Your task to perform on an android device: delete location history Image 0: 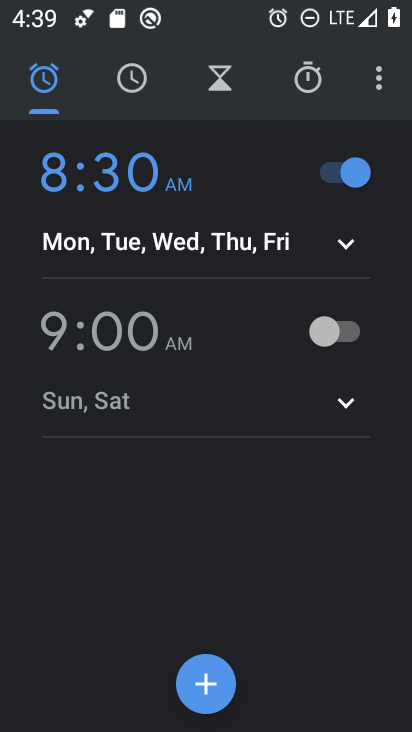
Step 0: press back button
Your task to perform on an android device: delete location history Image 1: 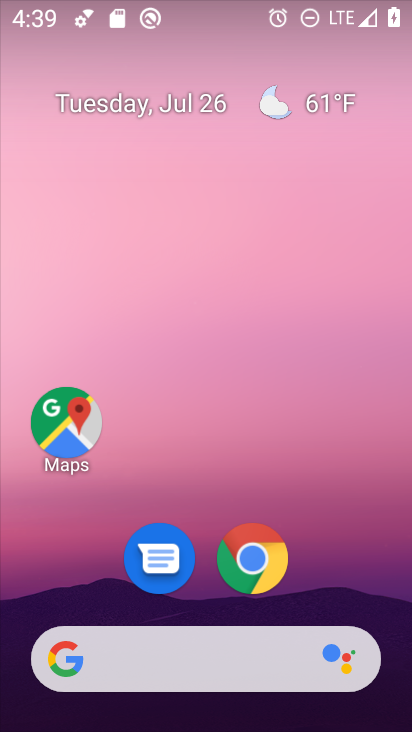
Step 1: click (53, 430)
Your task to perform on an android device: delete location history Image 2: 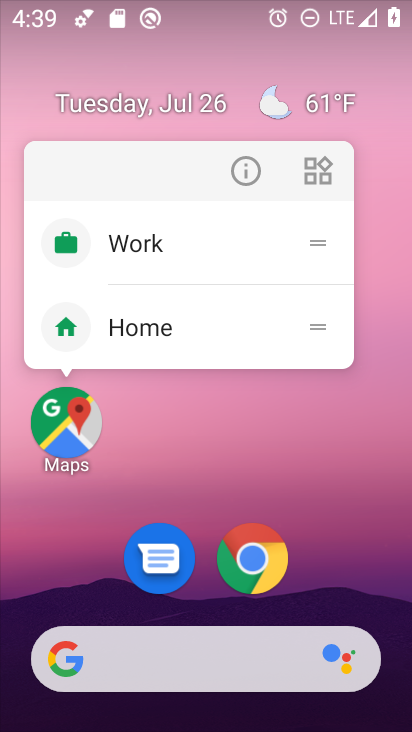
Step 2: click (58, 438)
Your task to perform on an android device: delete location history Image 3: 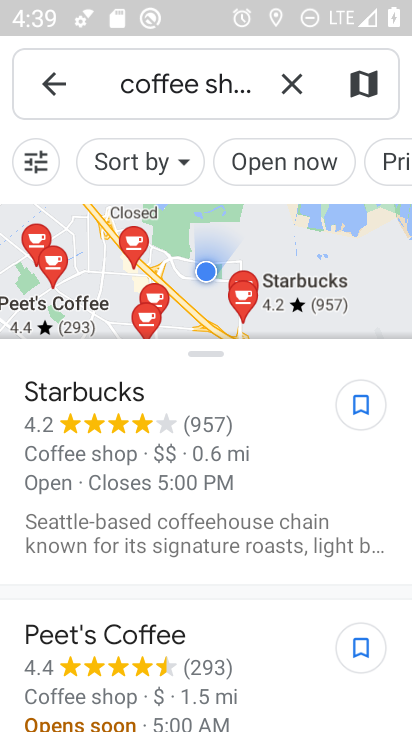
Step 3: click (56, 81)
Your task to perform on an android device: delete location history Image 4: 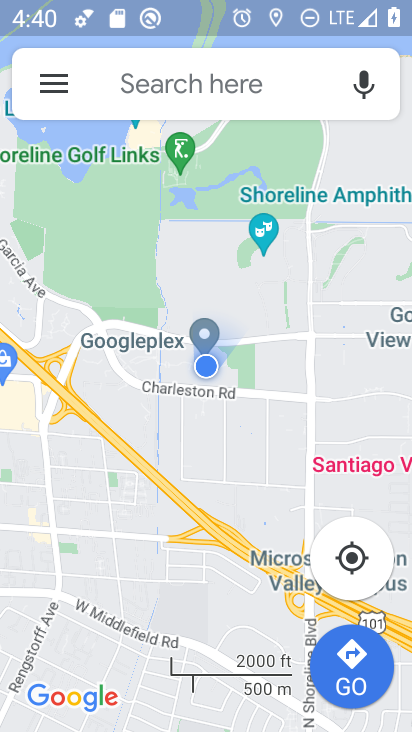
Step 4: click (37, 75)
Your task to perform on an android device: delete location history Image 5: 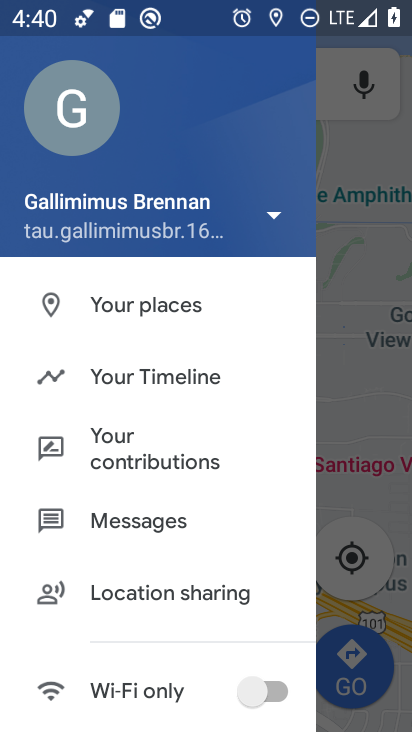
Step 5: click (144, 380)
Your task to perform on an android device: delete location history Image 6: 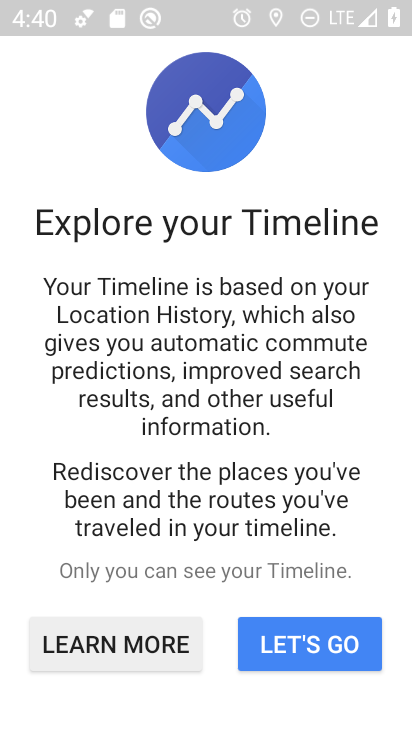
Step 6: click (310, 660)
Your task to perform on an android device: delete location history Image 7: 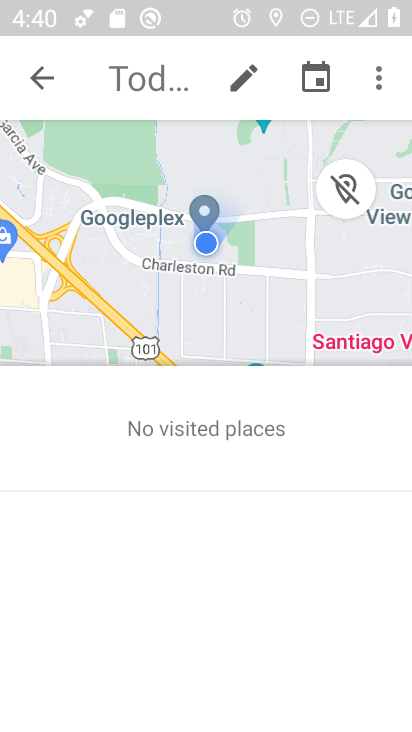
Step 7: click (365, 73)
Your task to perform on an android device: delete location history Image 8: 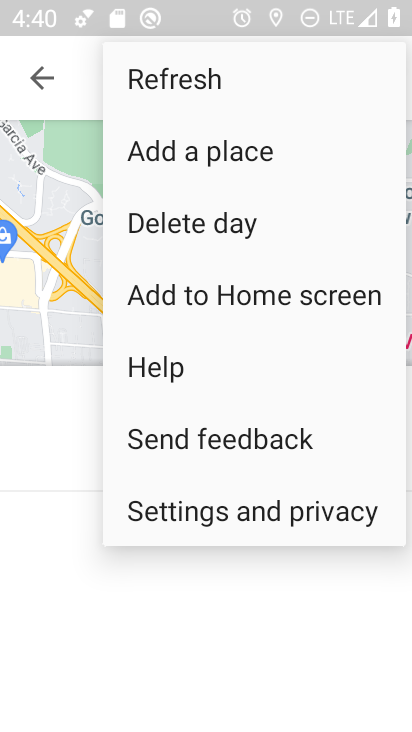
Step 8: click (203, 525)
Your task to perform on an android device: delete location history Image 9: 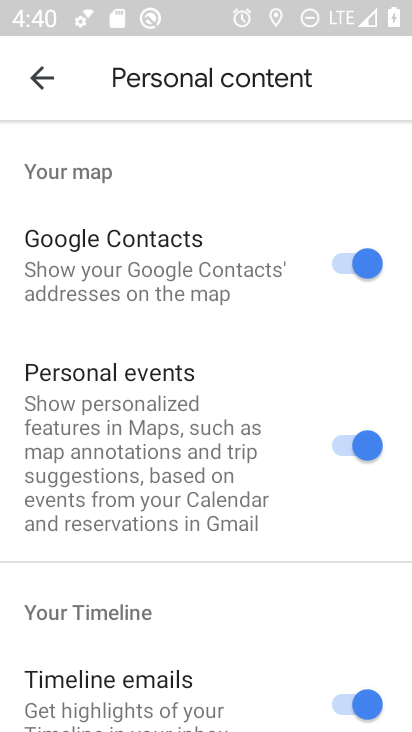
Step 9: drag from (155, 631) to (269, 69)
Your task to perform on an android device: delete location history Image 10: 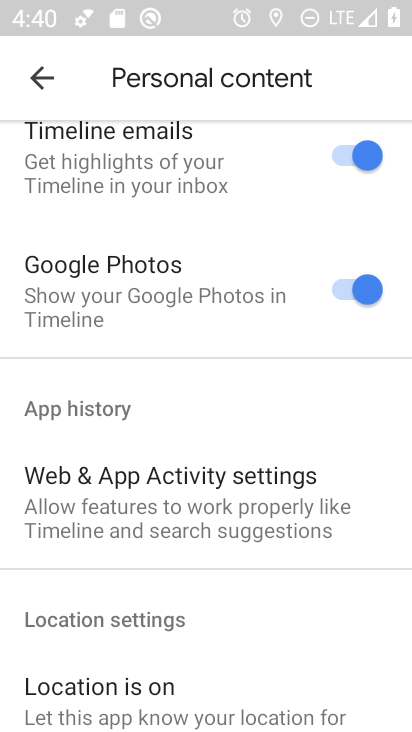
Step 10: drag from (112, 622) to (273, 82)
Your task to perform on an android device: delete location history Image 11: 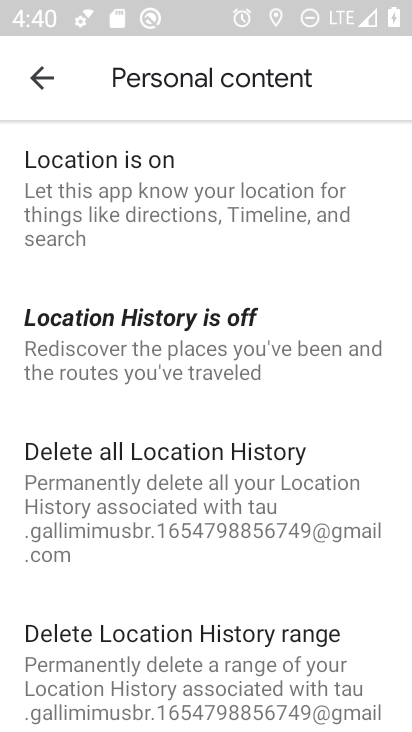
Step 11: click (190, 500)
Your task to perform on an android device: delete location history Image 12: 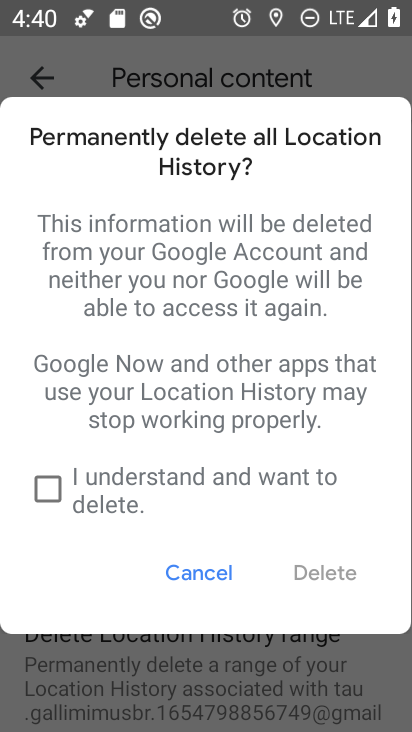
Step 12: click (87, 502)
Your task to perform on an android device: delete location history Image 13: 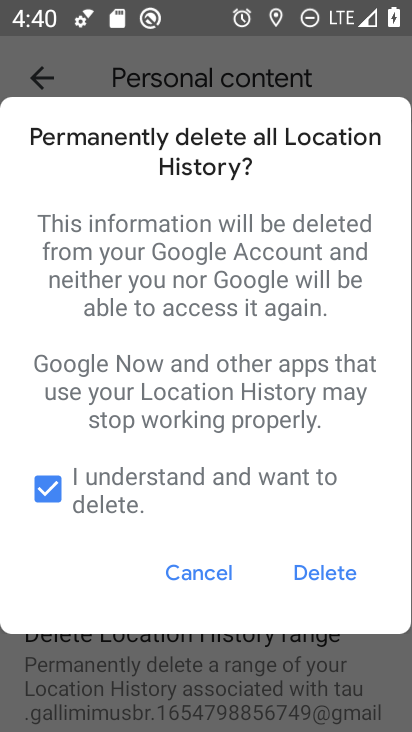
Step 13: click (328, 566)
Your task to perform on an android device: delete location history Image 14: 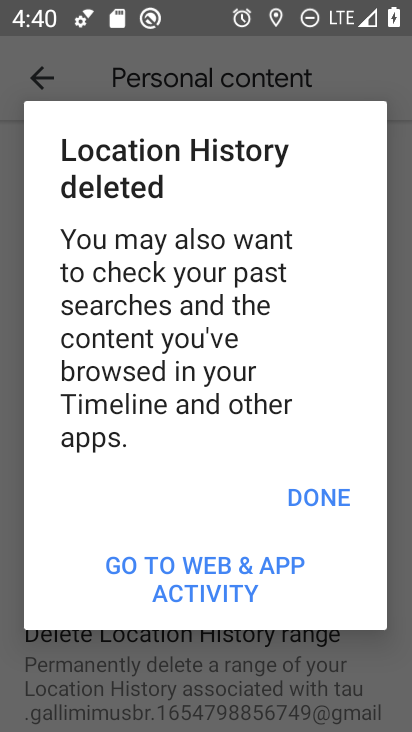
Step 14: click (304, 480)
Your task to perform on an android device: delete location history Image 15: 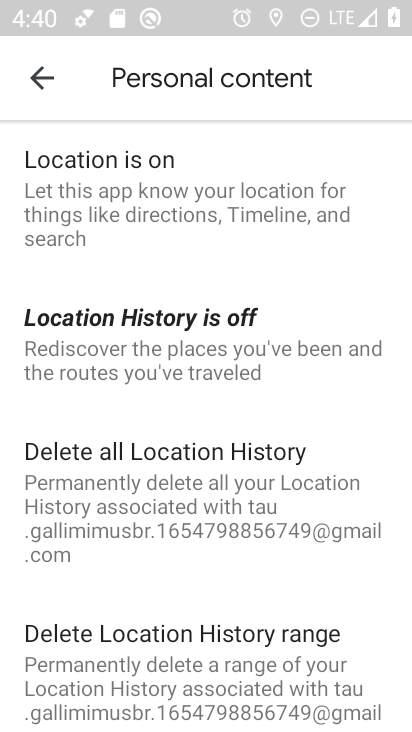
Step 15: click (170, 515)
Your task to perform on an android device: delete location history Image 16: 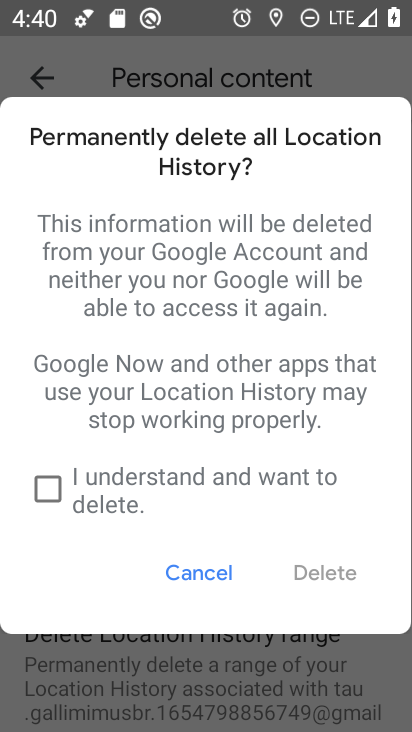
Step 16: click (64, 512)
Your task to perform on an android device: delete location history Image 17: 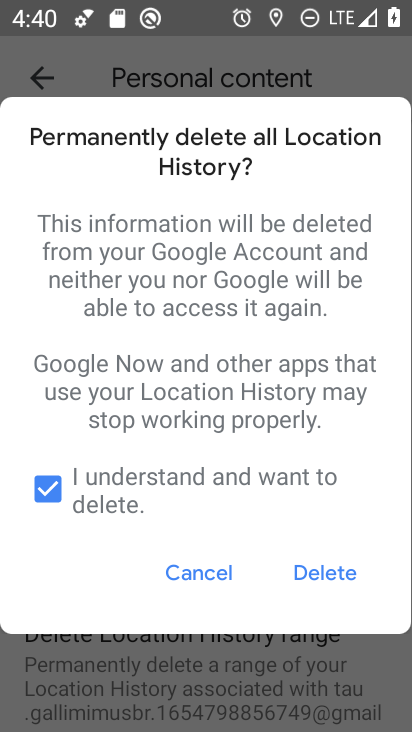
Step 17: click (331, 568)
Your task to perform on an android device: delete location history Image 18: 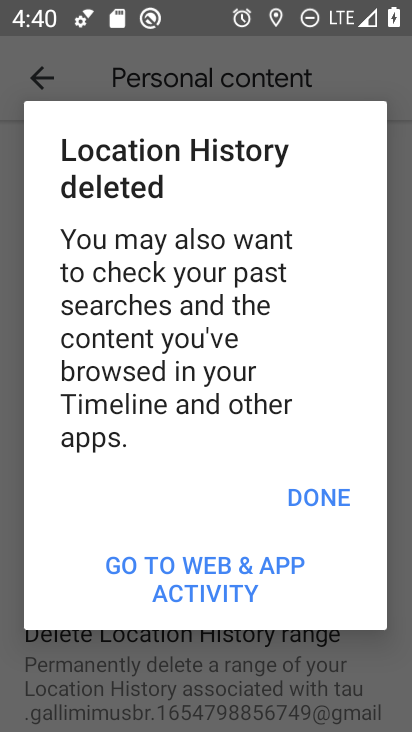
Step 18: click (331, 486)
Your task to perform on an android device: delete location history Image 19: 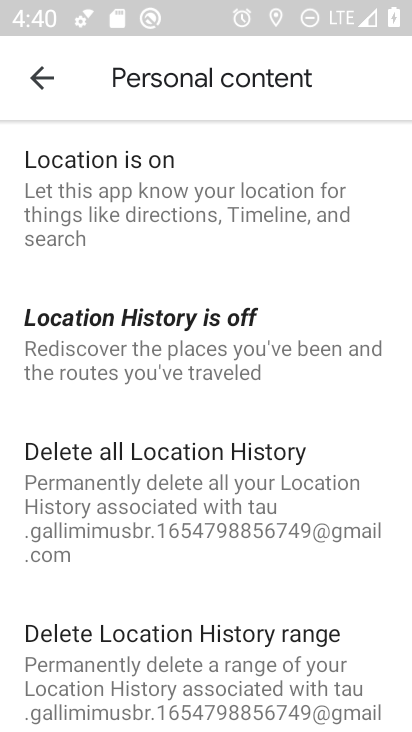
Step 19: task complete